Your task to perform on an android device: change the clock display to show seconds Image 0: 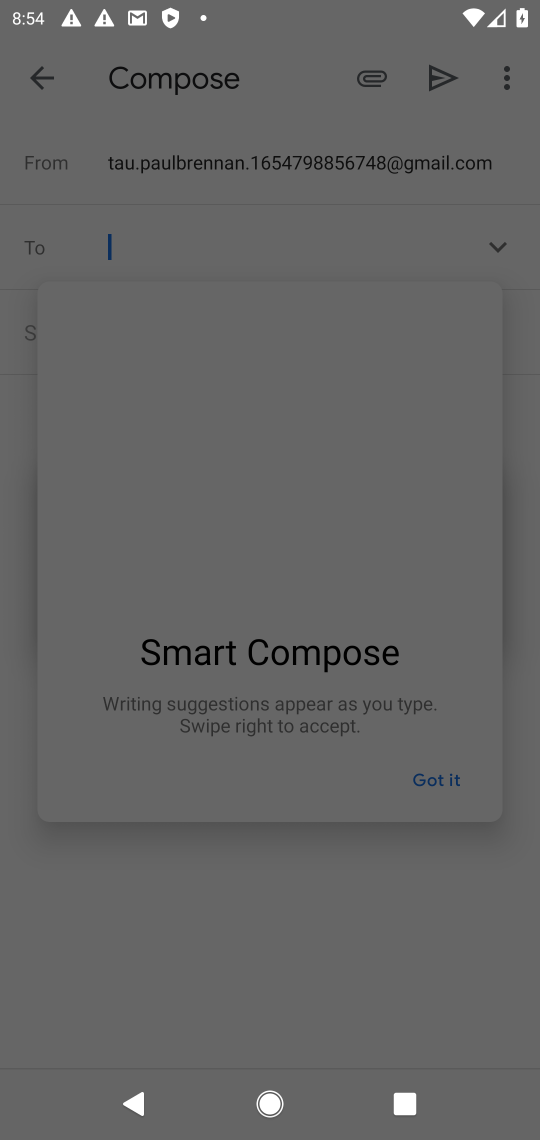
Step 0: press home button
Your task to perform on an android device: change the clock display to show seconds Image 1: 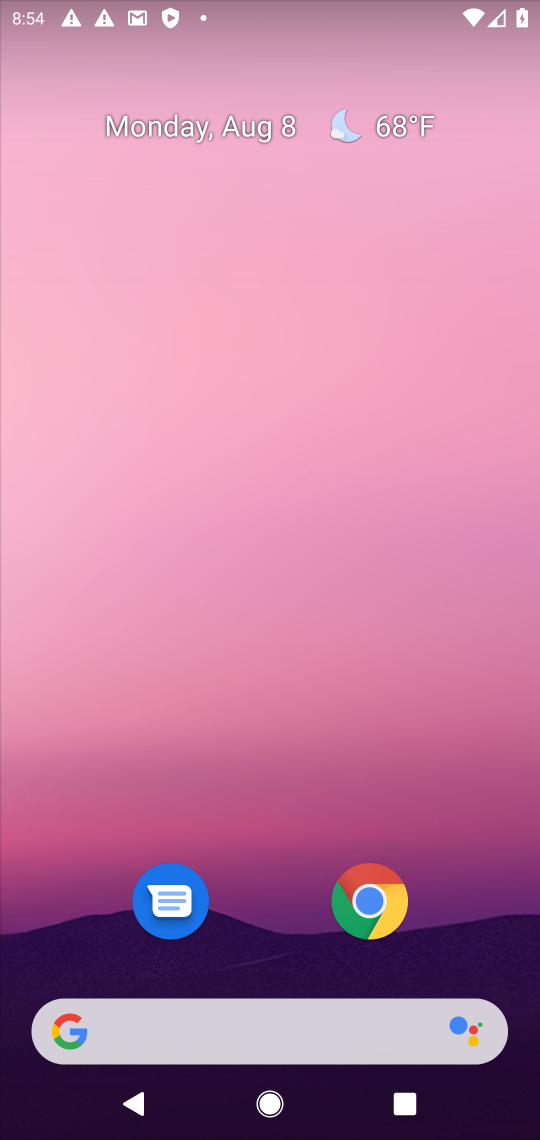
Step 1: click (233, 954)
Your task to perform on an android device: change the clock display to show seconds Image 2: 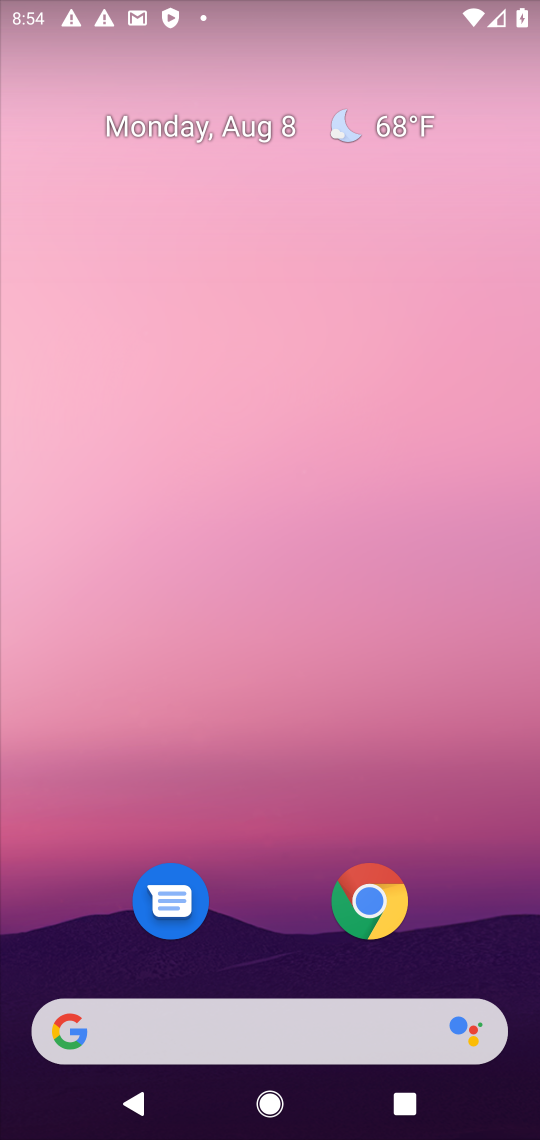
Step 2: drag from (240, 911) to (271, 62)
Your task to perform on an android device: change the clock display to show seconds Image 3: 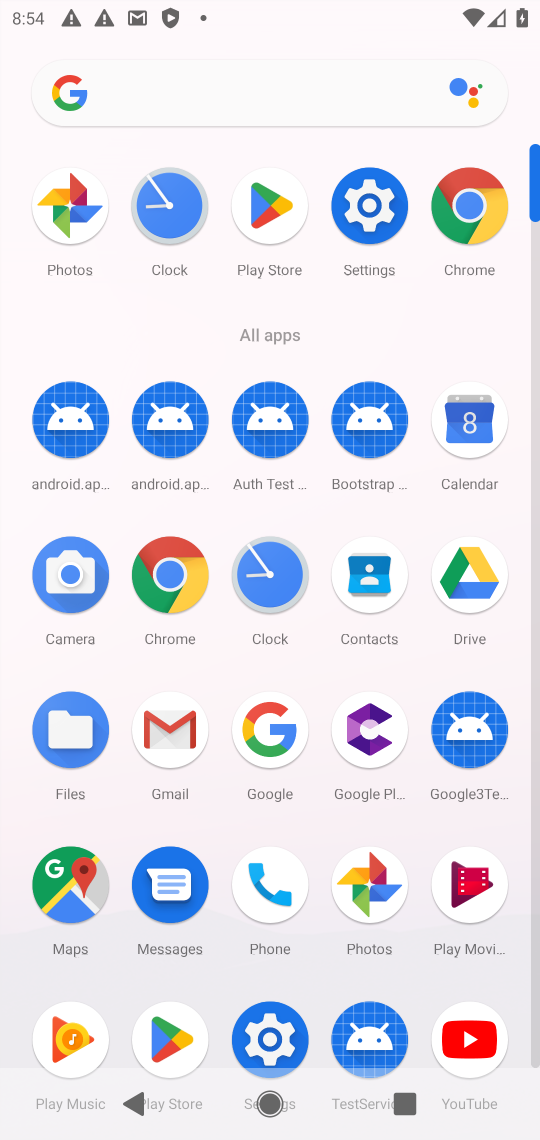
Step 3: click (273, 576)
Your task to perform on an android device: change the clock display to show seconds Image 4: 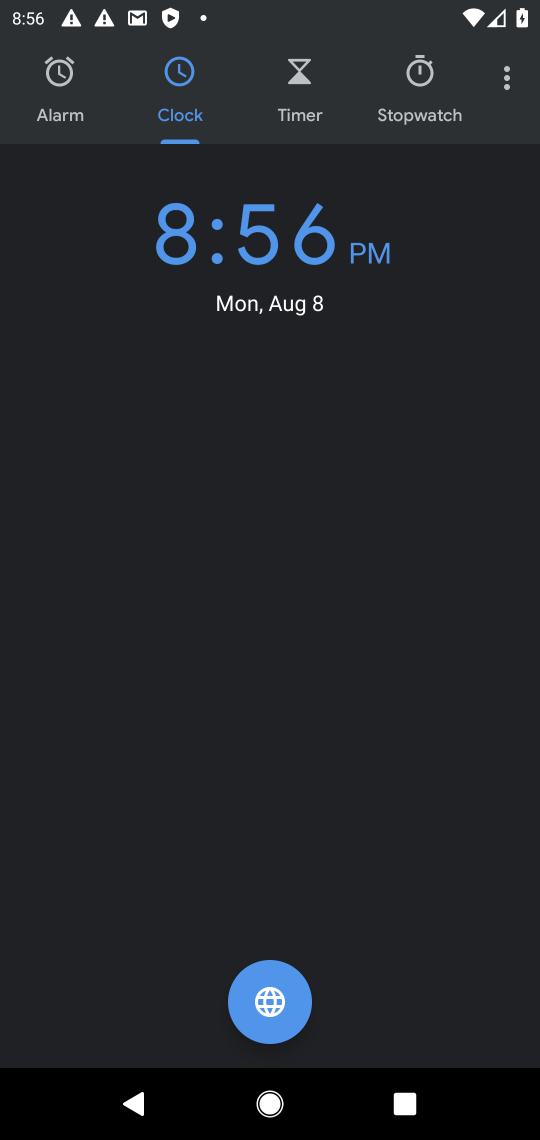
Step 4: click (503, 92)
Your task to perform on an android device: change the clock display to show seconds Image 5: 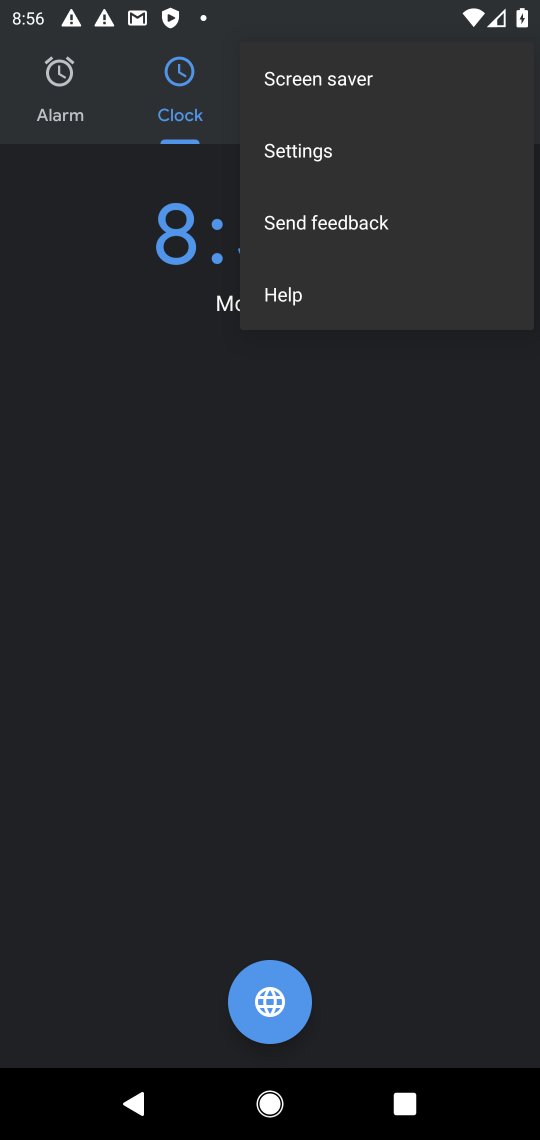
Step 5: click (392, 147)
Your task to perform on an android device: change the clock display to show seconds Image 6: 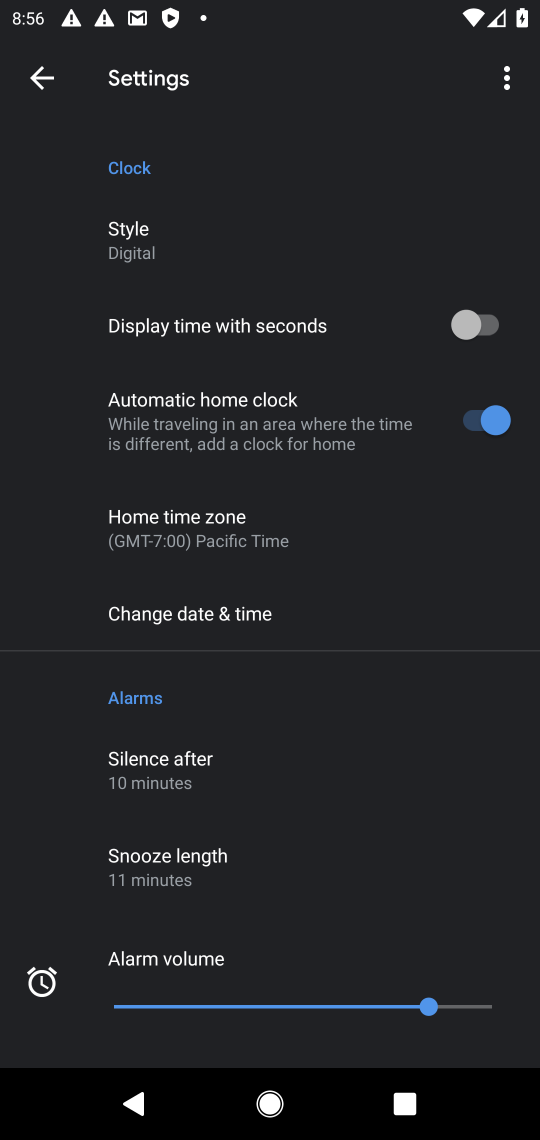
Step 6: click (311, 160)
Your task to perform on an android device: change the clock display to show seconds Image 7: 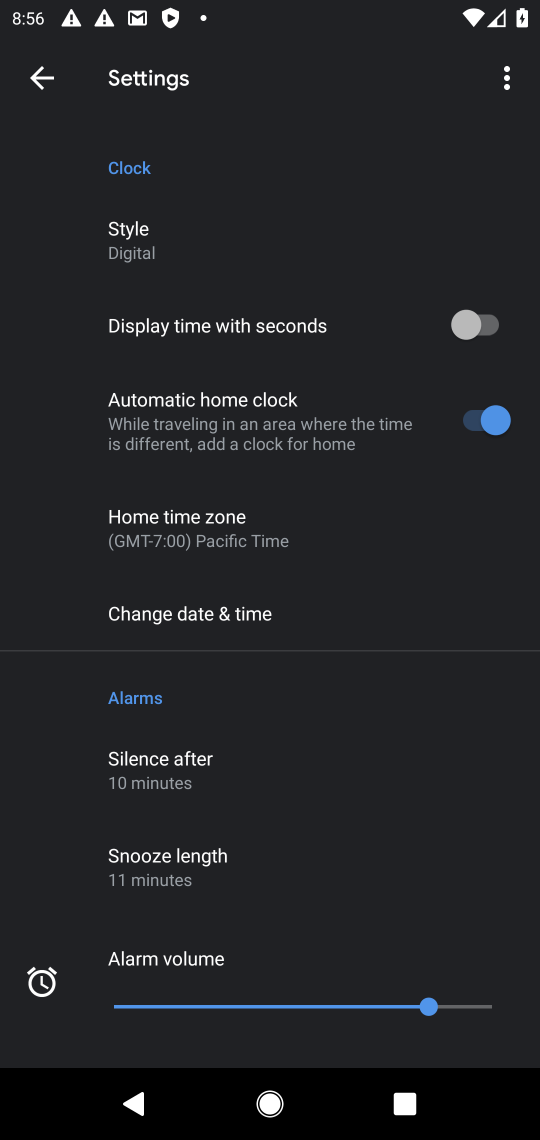
Step 7: click (483, 333)
Your task to perform on an android device: change the clock display to show seconds Image 8: 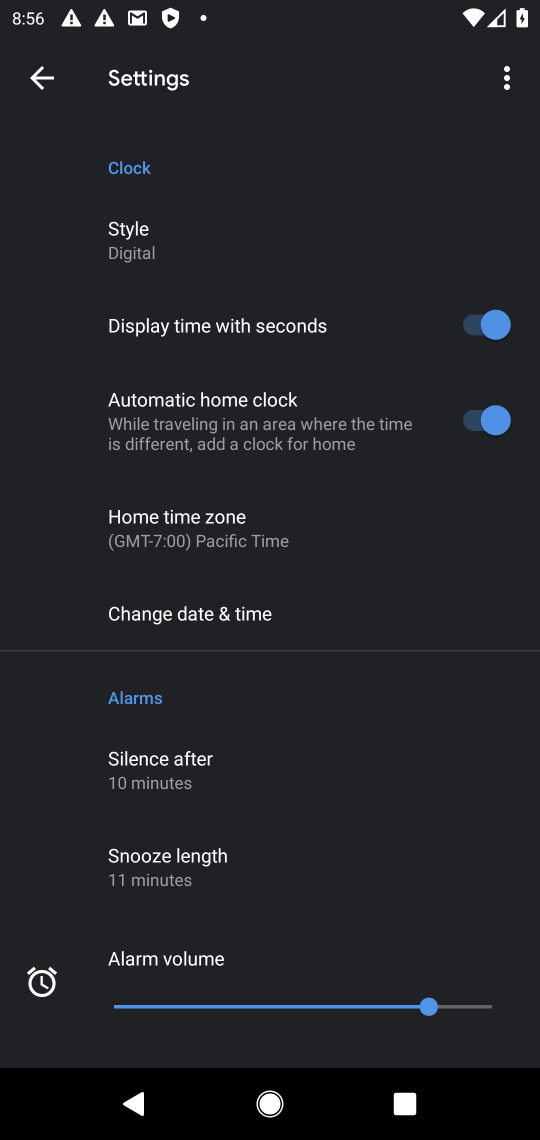
Step 8: task complete